Your task to perform on an android device: remove spam from my inbox in the gmail app Image 0: 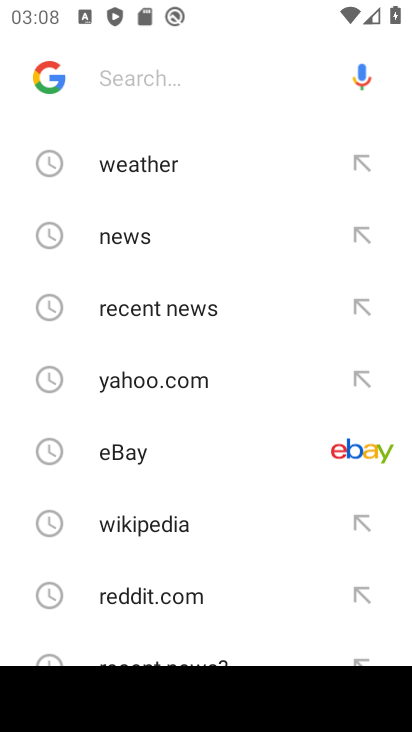
Step 0: press home button
Your task to perform on an android device: remove spam from my inbox in the gmail app Image 1: 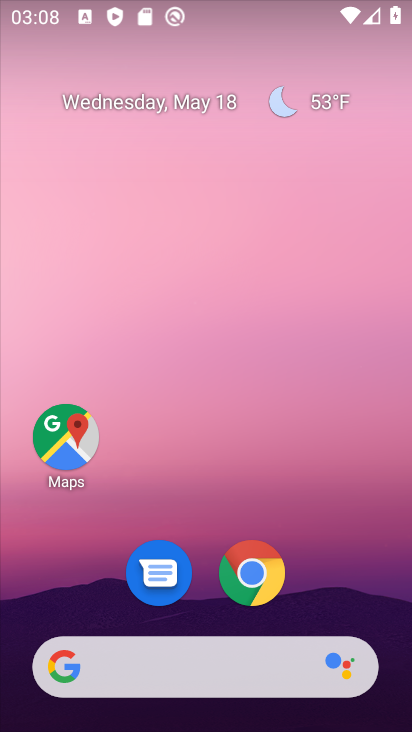
Step 1: drag from (210, 615) to (224, 250)
Your task to perform on an android device: remove spam from my inbox in the gmail app Image 2: 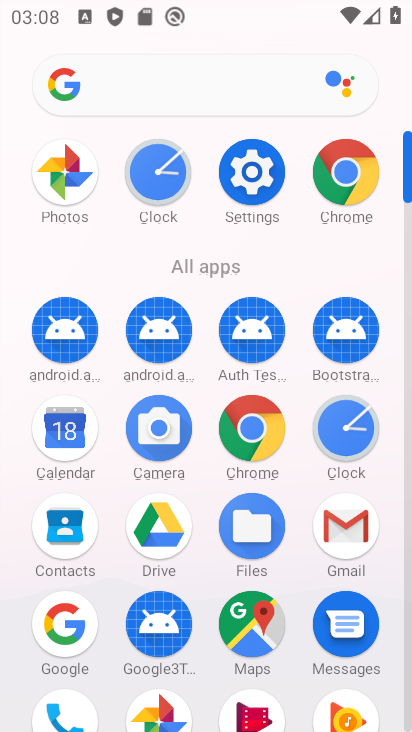
Step 2: click (335, 529)
Your task to perform on an android device: remove spam from my inbox in the gmail app Image 3: 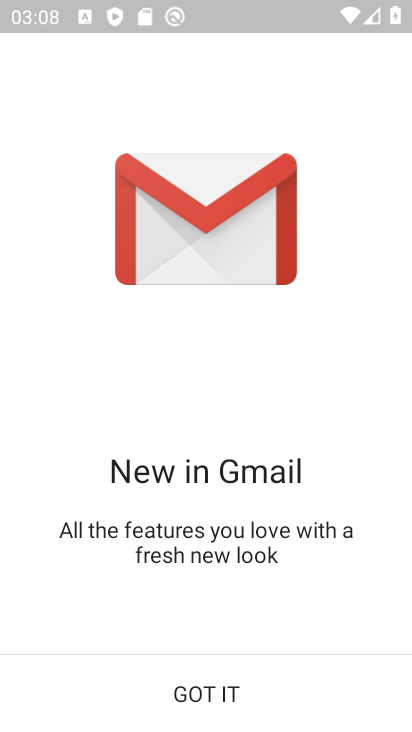
Step 3: click (217, 682)
Your task to perform on an android device: remove spam from my inbox in the gmail app Image 4: 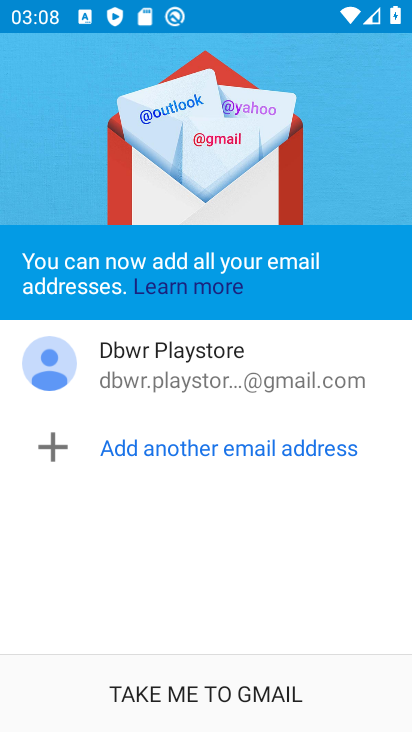
Step 4: click (215, 682)
Your task to perform on an android device: remove spam from my inbox in the gmail app Image 5: 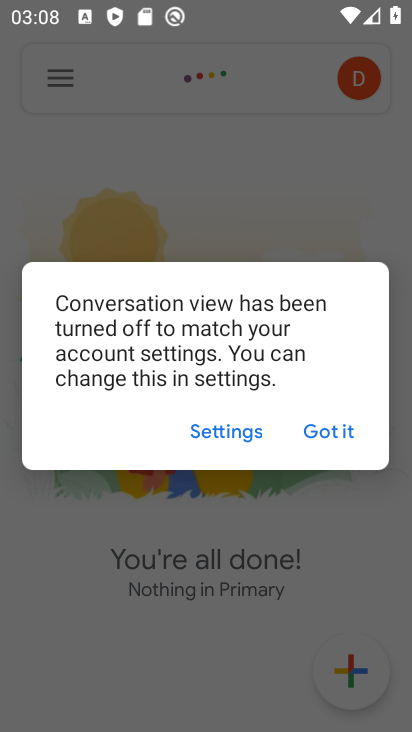
Step 5: click (310, 438)
Your task to perform on an android device: remove spam from my inbox in the gmail app Image 6: 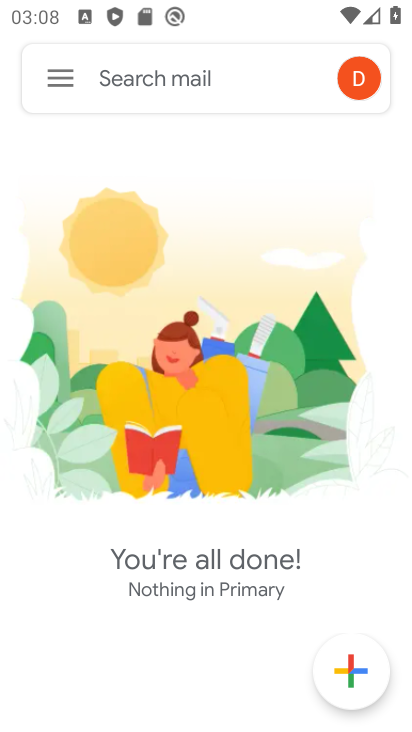
Step 6: click (71, 81)
Your task to perform on an android device: remove spam from my inbox in the gmail app Image 7: 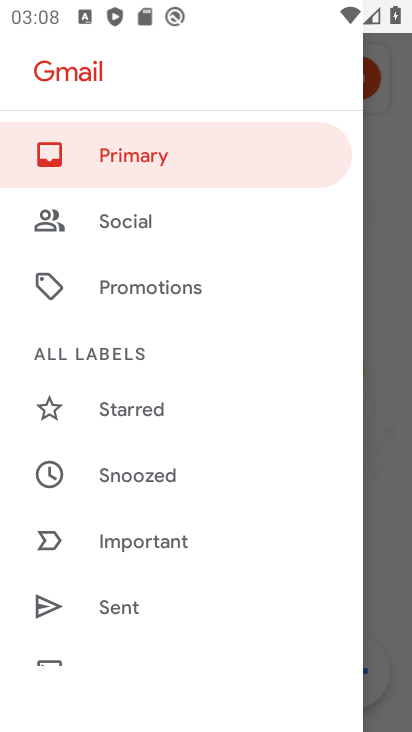
Step 7: drag from (160, 579) to (179, 334)
Your task to perform on an android device: remove spam from my inbox in the gmail app Image 8: 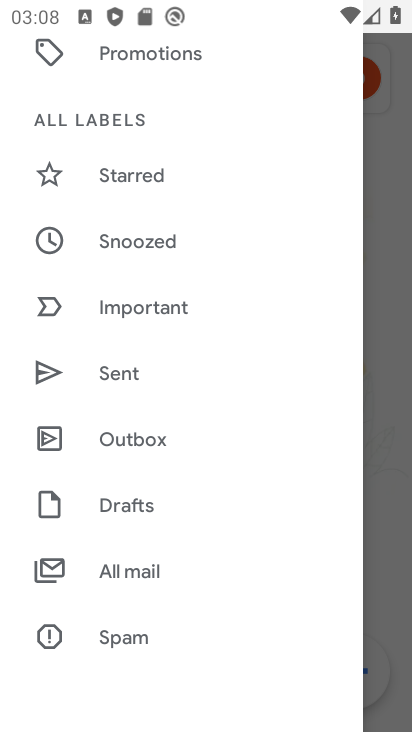
Step 8: click (154, 634)
Your task to perform on an android device: remove spam from my inbox in the gmail app Image 9: 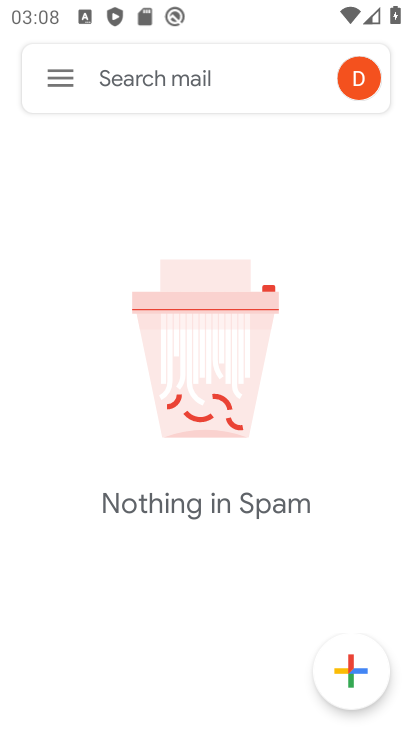
Step 9: task complete